Your task to perform on an android device: Open the stopwatch Image 0: 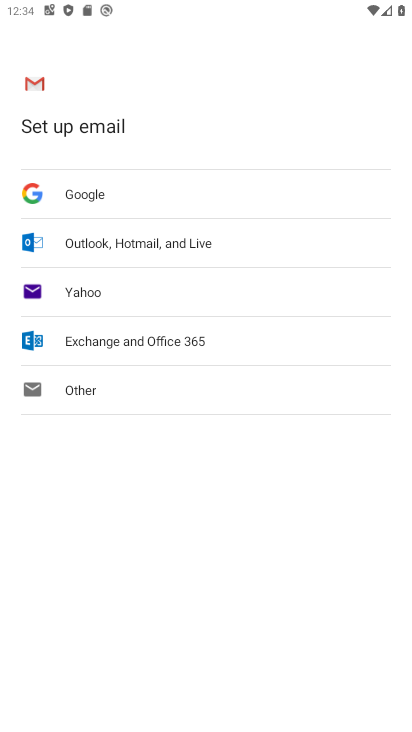
Step 0: press home button
Your task to perform on an android device: Open the stopwatch Image 1: 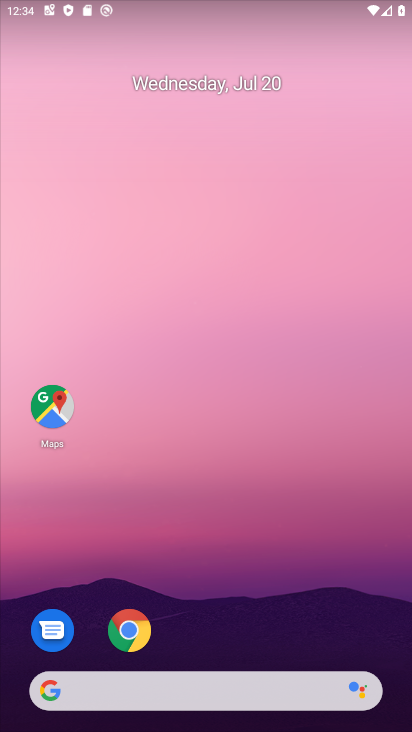
Step 1: drag from (287, 621) to (248, 76)
Your task to perform on an android device: Open the stopwatch Image 2: 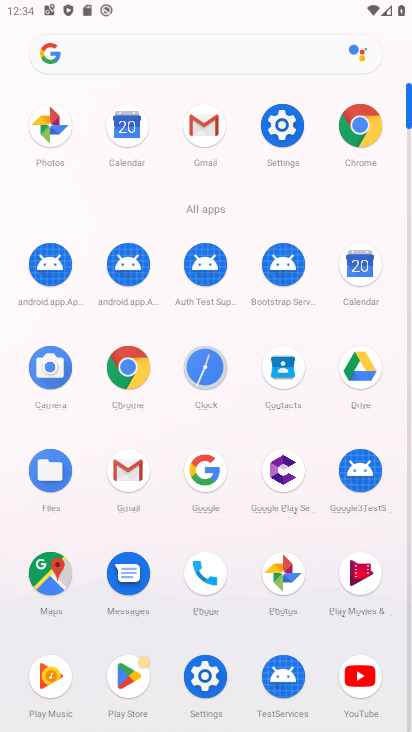
Step 2: click (201, 362)
Your task to perform on an android device: Open the stopwatch Image 3: 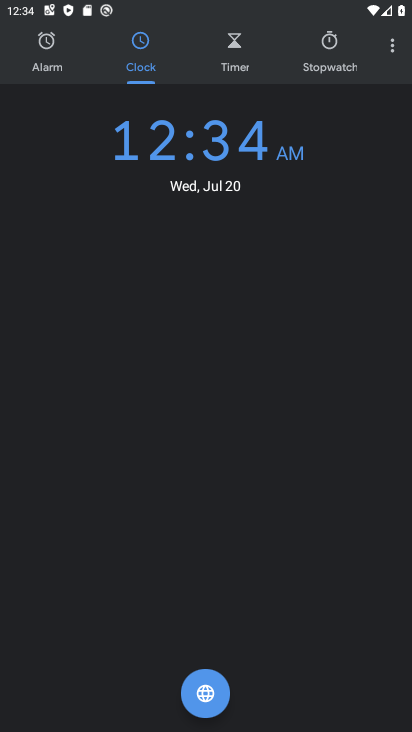
Step 3: click (332, 44)
Your task to perform on an android device: Open the stopwatch Image 4: 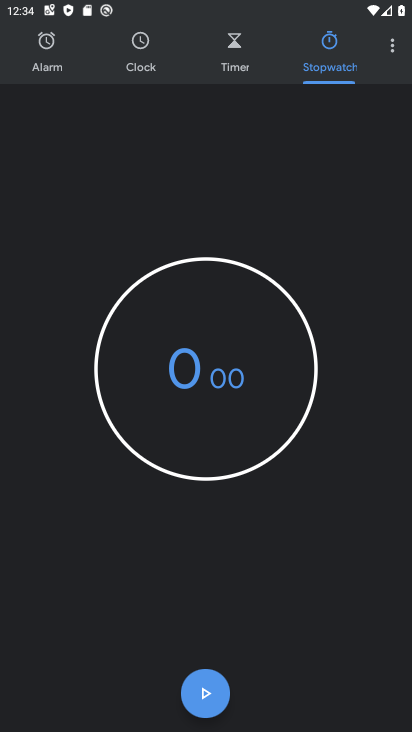
Step 4: task complete